Your task to perform on an android device: Open Reddit.com Image 0: 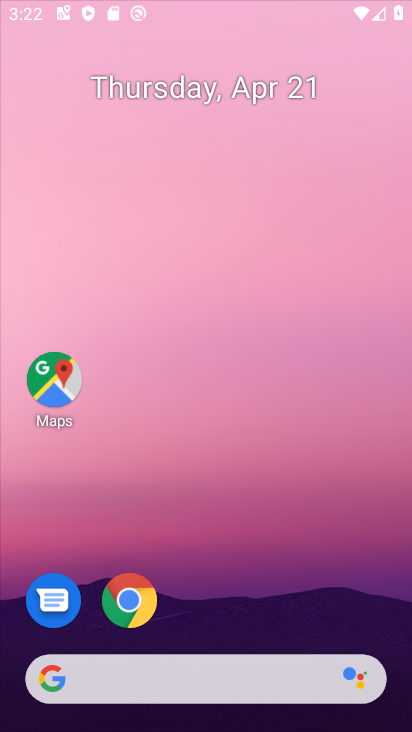
Step 0: drag from (216, 34) to (284, 42)
Your task to perform on an android device: Open Reddit.com Image 1: 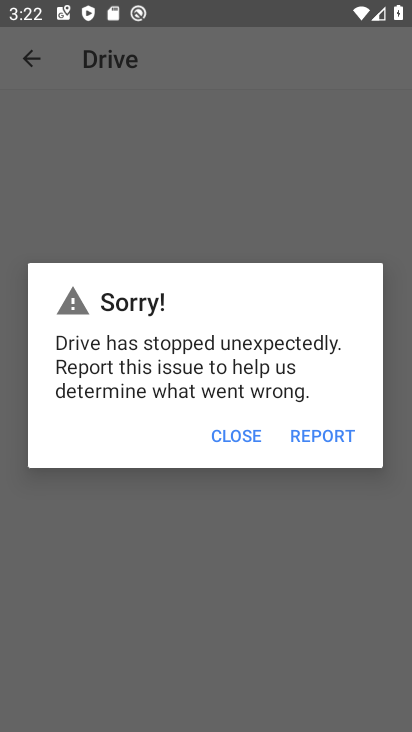
Step 1: press home button
Your task to perform on an android device: Open Reddit.com Image 2: 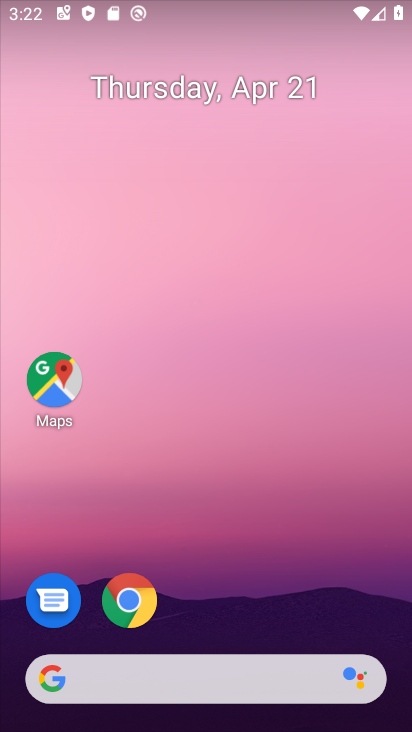
Step 2: click (128, 605)
Your task to perform on an android device: Open Reddit.com Image 3: 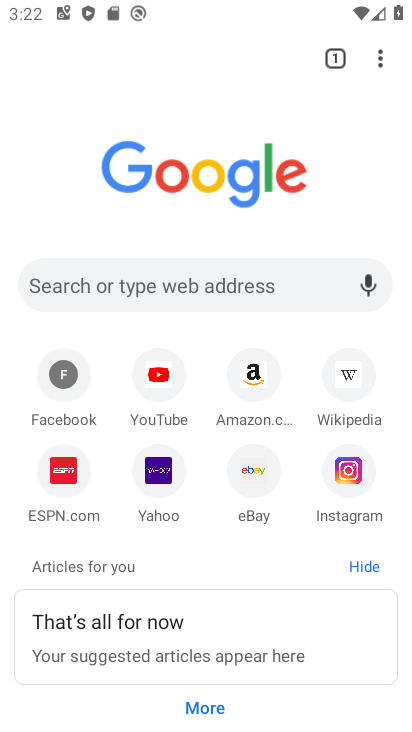
Step 3: click (262, 273)
Your task to perform on an android device: Open Reddit.com Image 4: 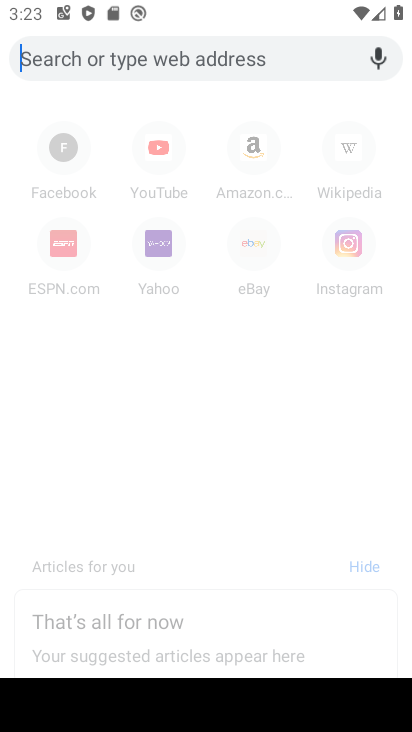
Step 4: type "Reddit.com"
Your task to perform on an android device: Open Reddit.com Image 5: 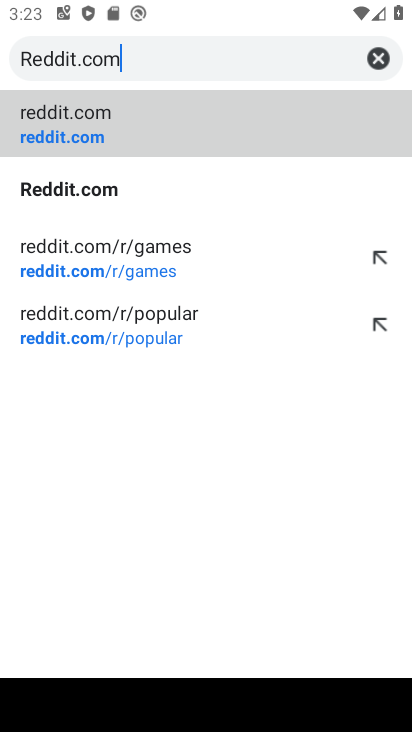
Step 5: click (97, 188)
Your task to perform on an android device: Open Reddit.com Image 6: 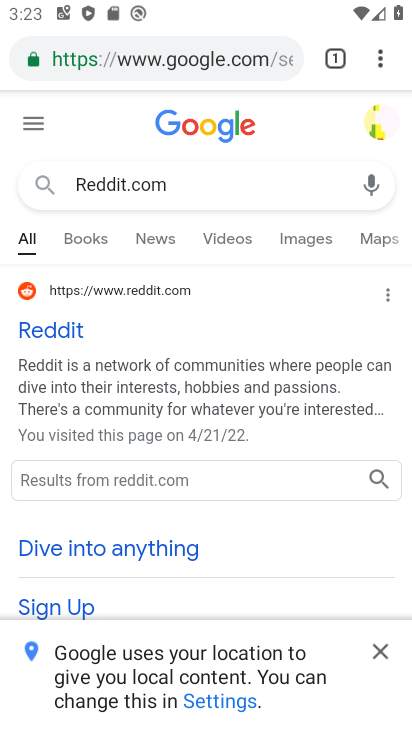
Step 6: click (375, 648)
Your task to perform on an android device: Open Reddit.com Image 7: 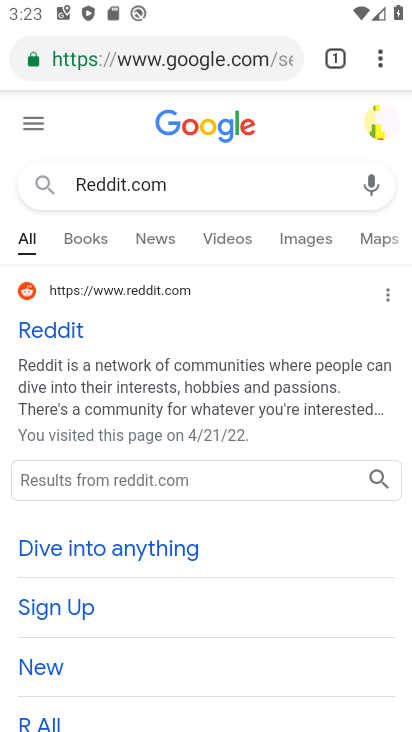
Step 7: task complete